Your task to perform on an android device: Go to accessibility settings Image 0: 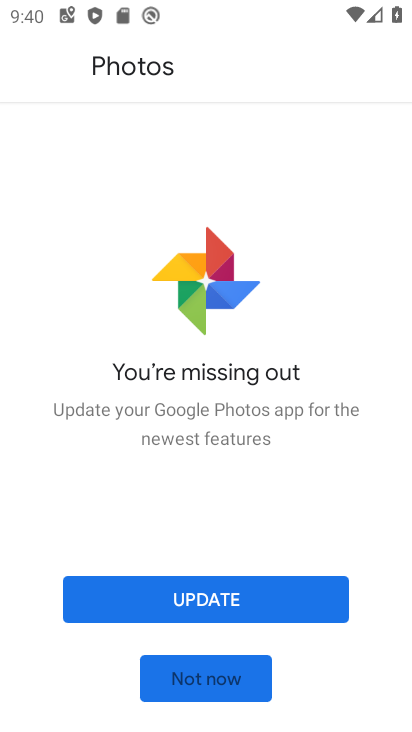
Step 0: press home button
Your task to perform on an android device: Go to accessibility settings Image 1: 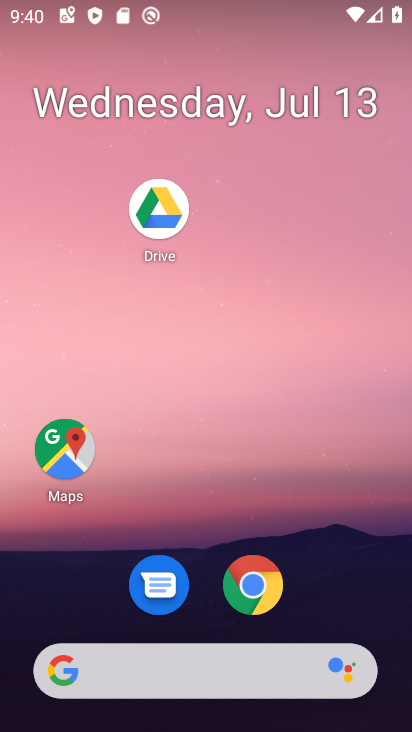
Step 1: drag from (230, 669) to (346, 57)
Your task to perform on an android device: Go to accessibility settings Image 2: 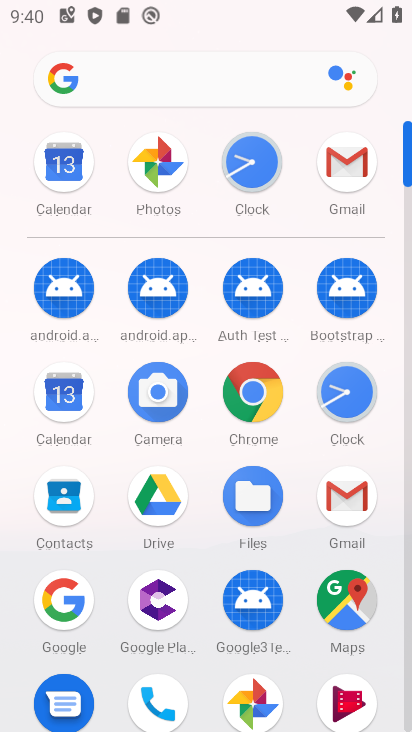
Step 2: drag from (208, 632) to (315, 186)
Your task to perform on an android device: Go to accessibility settings Image 3: 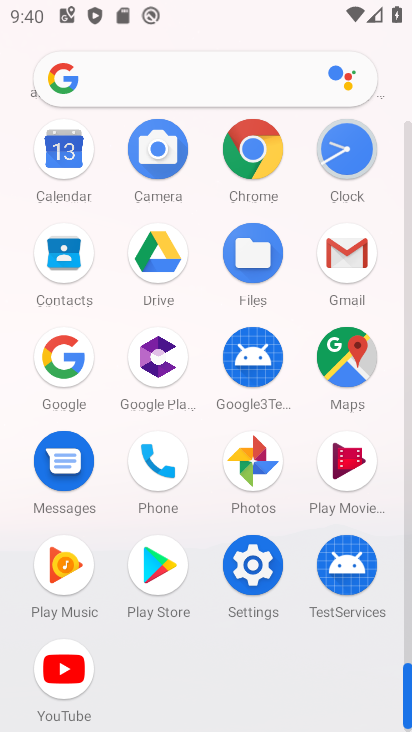
Step 3: click (258, 563)
Your task to perform on an android device: Go to accessibility settings Image 4: 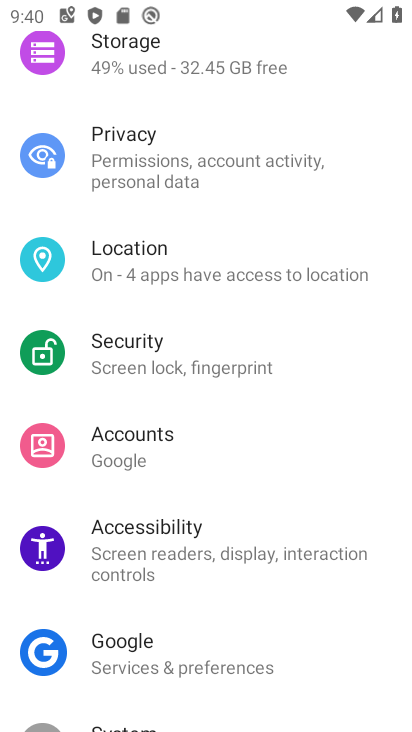
Step 4: click (168, 538)
Your task to perform on an android device: Go to accessibility settings Image 5: 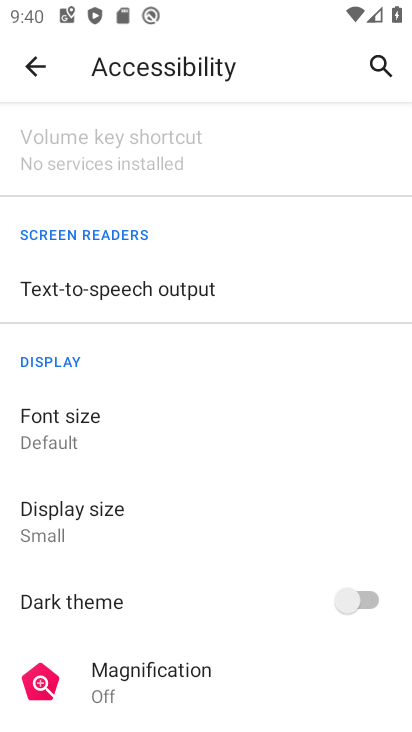
Step 5: task complete